Your task to perform on an android device: Open the calendar and show me this week's events Image 0: 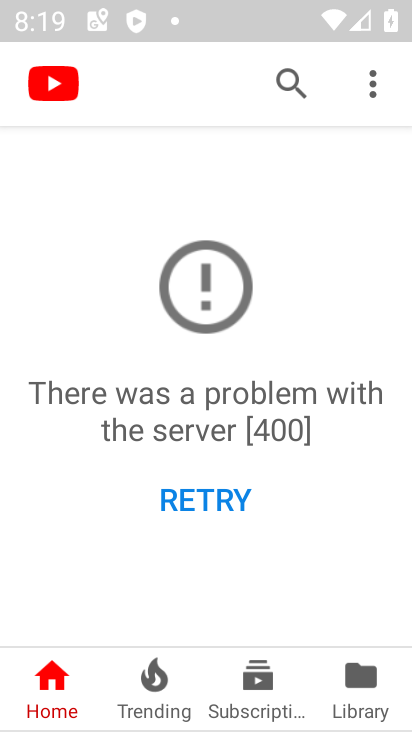
Step 0: press home button
Your task to perform on an android device: Open the calendar and show me this week's events Image 1: 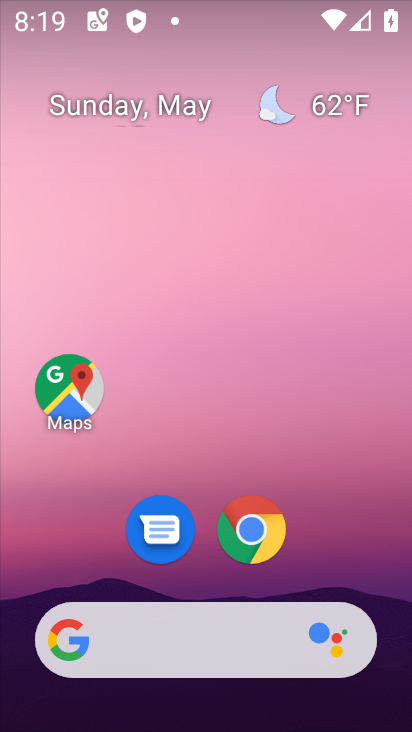
Step 1: drag from (374, 547) to (373, 155)
Your task to perform on an android device: Open the calendar and show me this week's events Image 2: 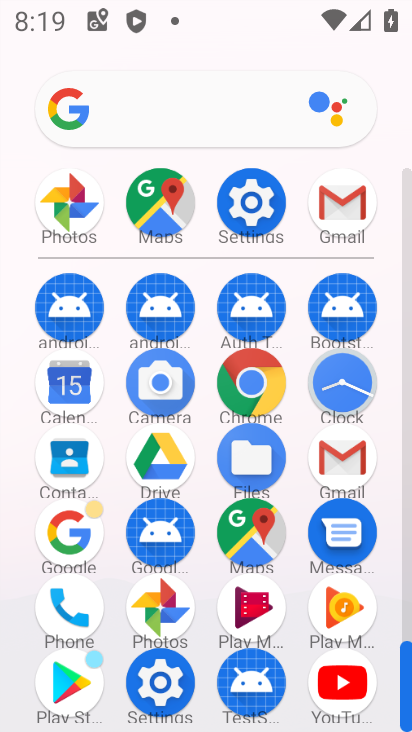
Step 2: click (59, 389)
Your task to perform on an android device: Open the calendar and show me this week's events Image 3: 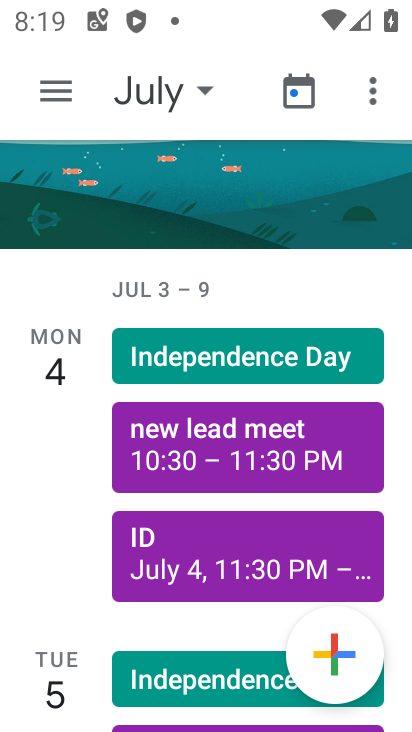
Step 3: click (150, 83)
Your task to perform on an android device: Open the calendar and show me this week's events Image 4: 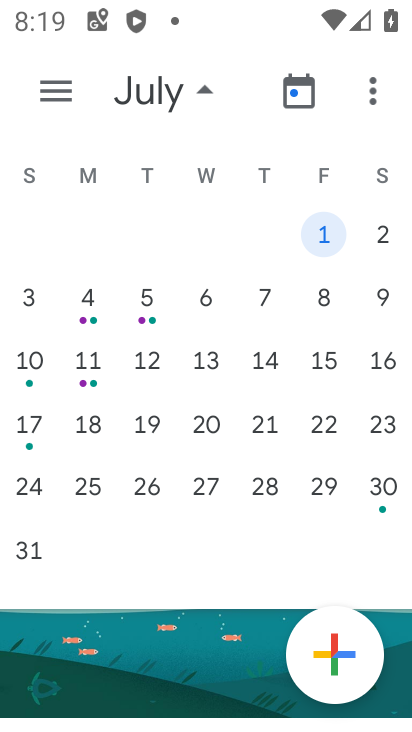
Step 4: drag from (80, 251) to (373, 268)
Your task to perform on an android device: Open the calendar and show me this week's events Image 5: 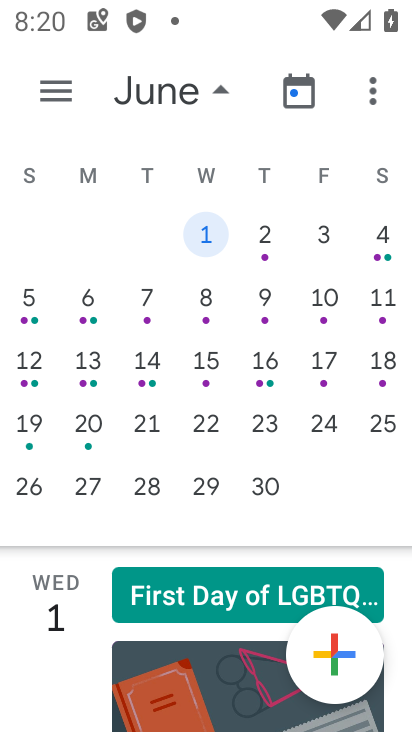
Step 5: drag from (115, 262) to (391, 260)
Your task to perform on an android device: Open the calendar and show me this week's events Image 6: 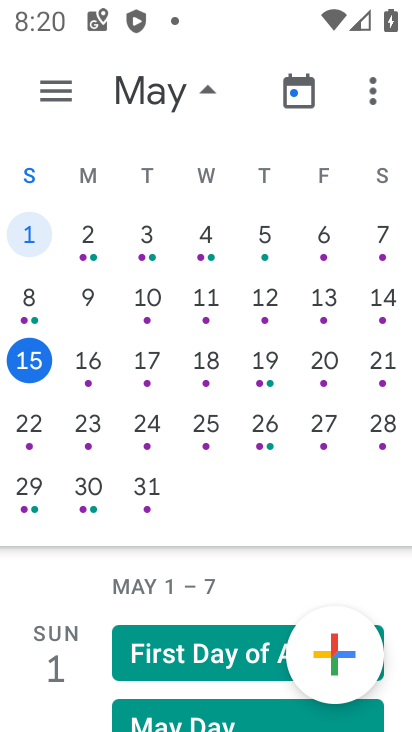
Step 6: click (23, 370)
Your task to perform on an android device: Open the calendar and show me this week's events Image 7: 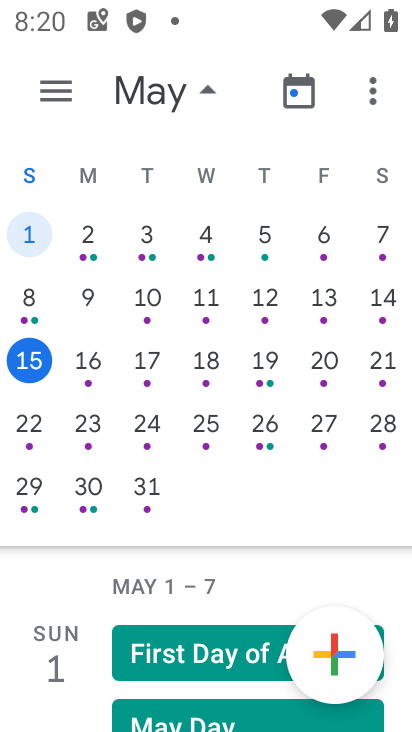
Step 7: click (31, 359)
Your task to perform on an android device: Open the calendar and show me this week's events Image 8: 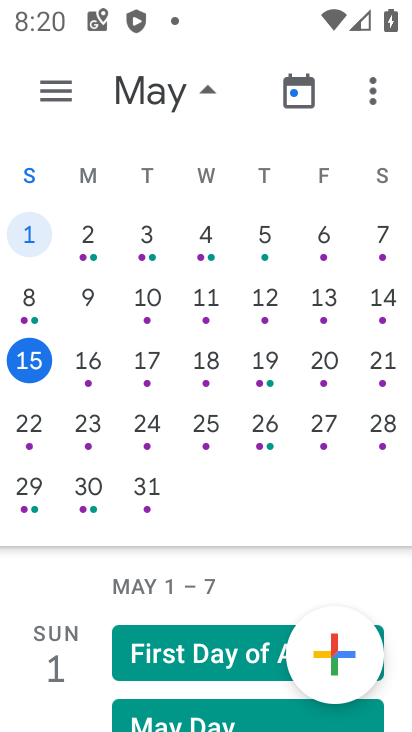
Step 8: task complete